Your task to perform on an android device: Go to Yahoo.com Image 0: 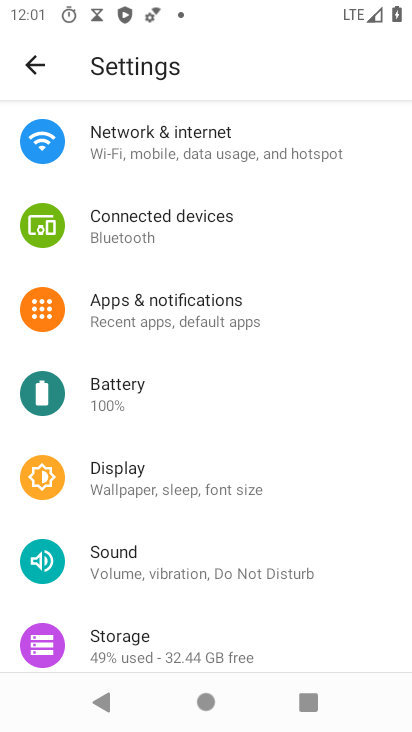
Step 0: press home button
Your task to perform on an android device: Go to Yahoo.com Image 1: 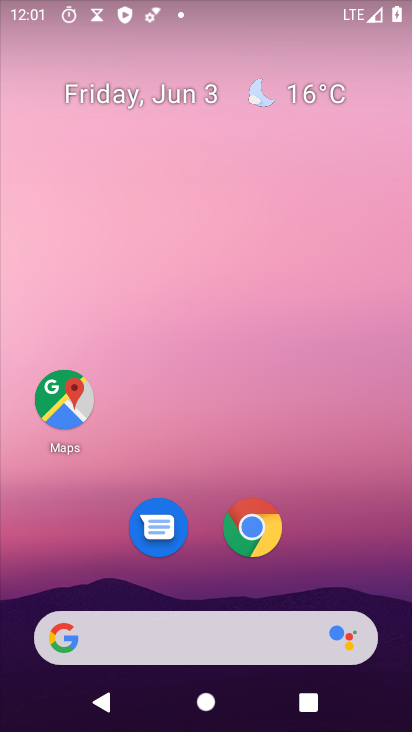
Step 1: click (256, 517)
Your task to perform on an android device: Go to Yahoo.com Image 2: 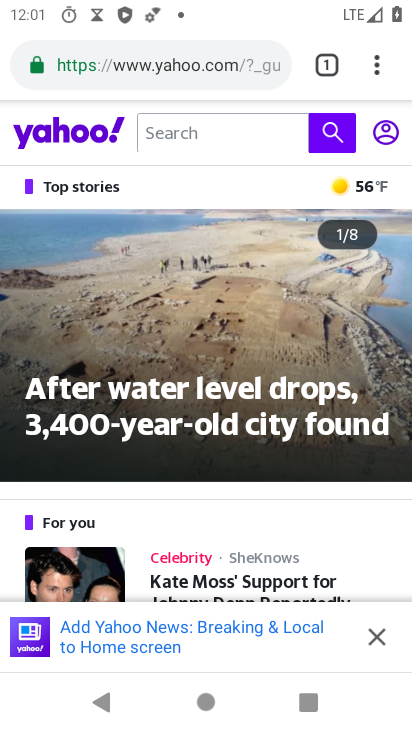
Step 2: task complete